Your task to perform on an android device: check out phone information Image 0: 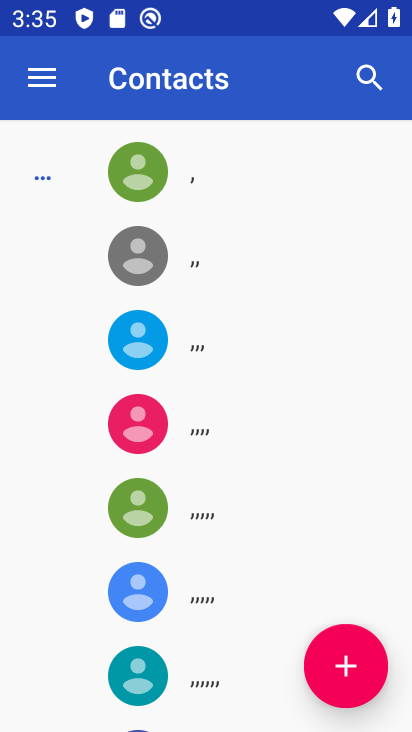
Step 0: press home button
Your task to perform on an android device: check out phone information Image 1: 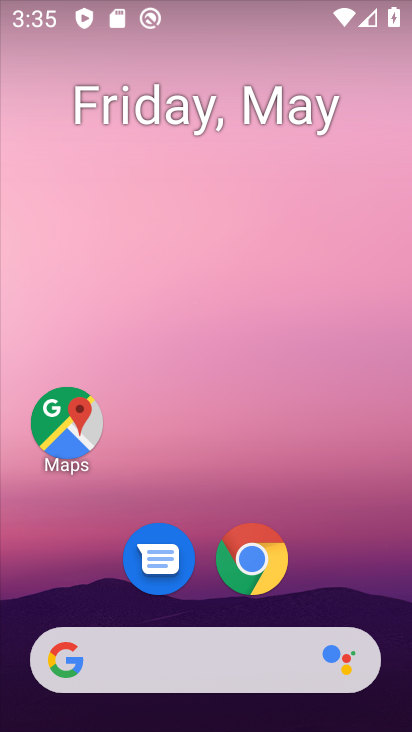
Step 1: drag from (343, 506) to (284, 180)
Your task to perform on an android device: check out phone information Image 2: 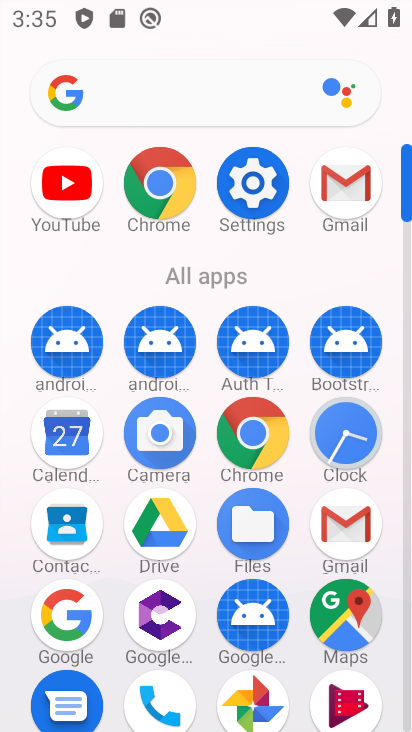
Step 2: click (252, 195)
Your task to perform on an android device: check out phone information Image 3: 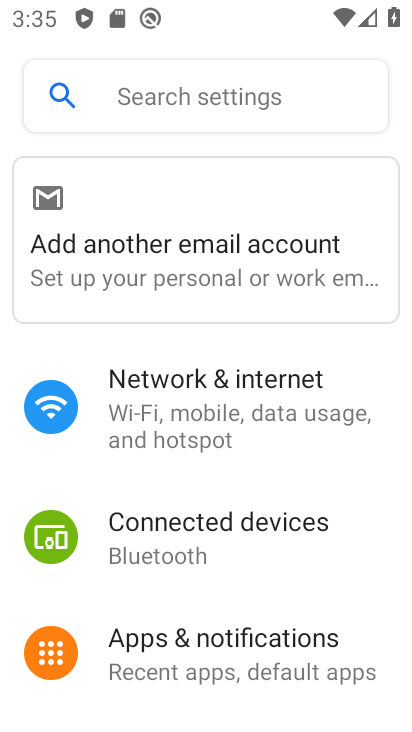
Step 3: drag from (265, 614) to (219, 152)
Your task to perform on an android device: check out phone information Image 4: 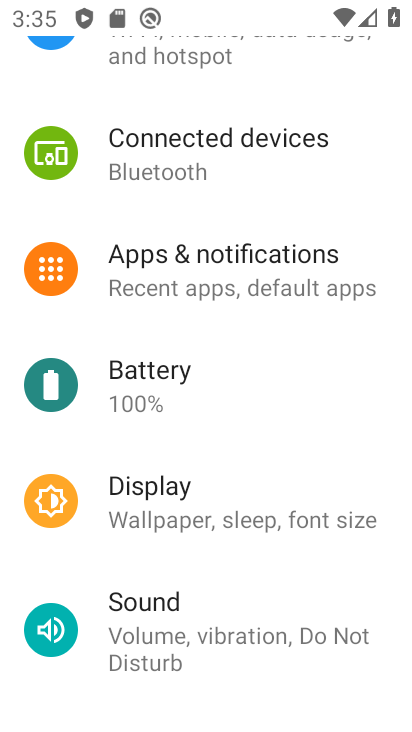
Step 4: drag from (243, 613) to (249, 187)
Your task to perform on an android device: check out phone information Image 5: 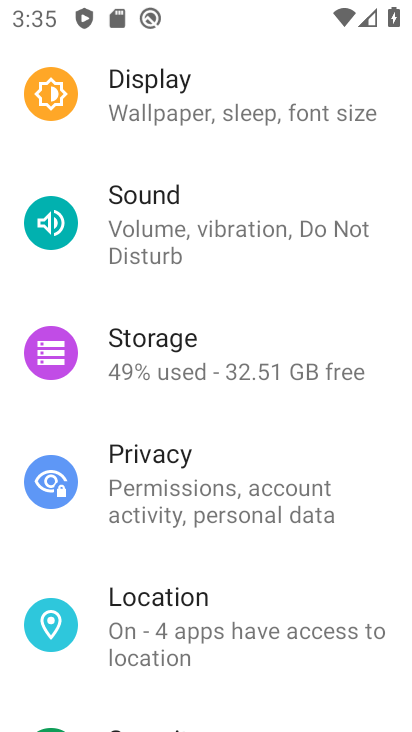
Step 5: drag from (226, 553) to (204, 128)
Your task to perform on an android device: check out phone information Image 6: 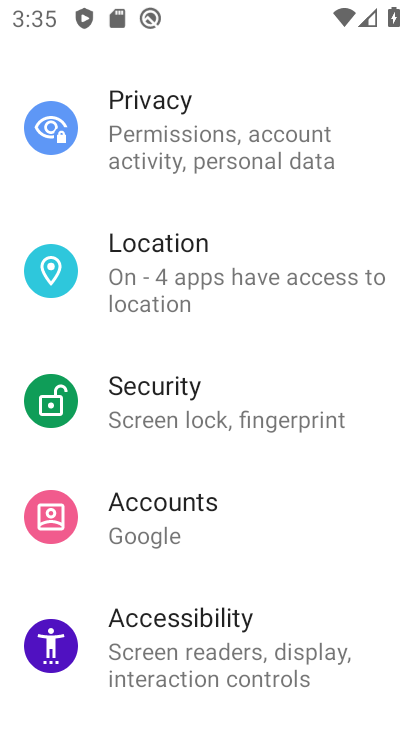
Step 6: drag from (152, 529) to (170, 82)
Your task to perform on an android device: check out phone information Image 7: 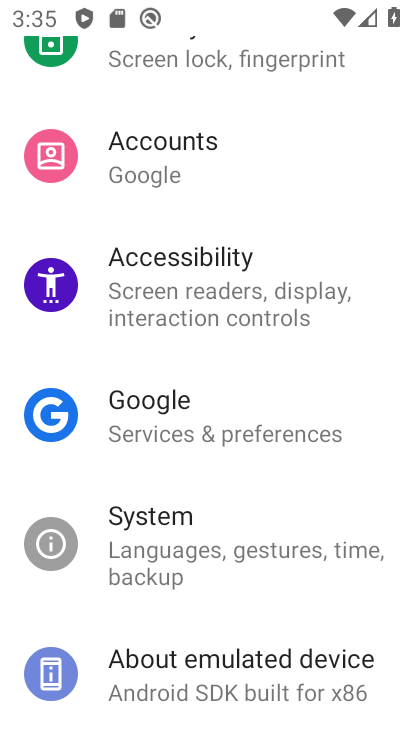
Step 7: drag from (175, 620) to (197, 101)
Your task to perform on an android device: check out phone information Image 8: 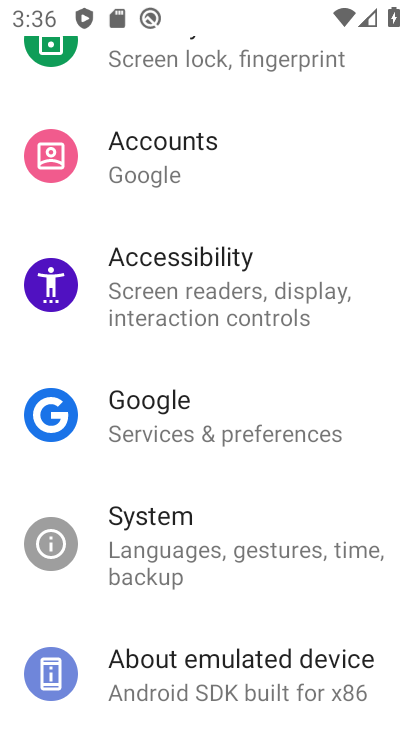
Step 8: click (220, 650)
Your task to perform on an android device: check out phone information Image 9: 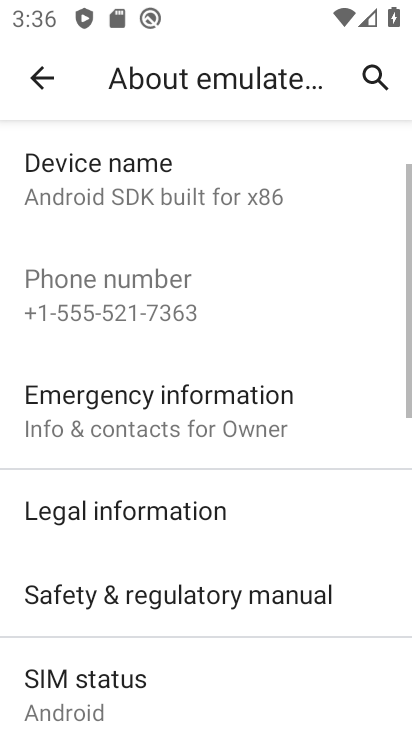
Step 9: task complete